Your task to perform on an android device: Open Google Maps and go to "Timeline" Image 0: 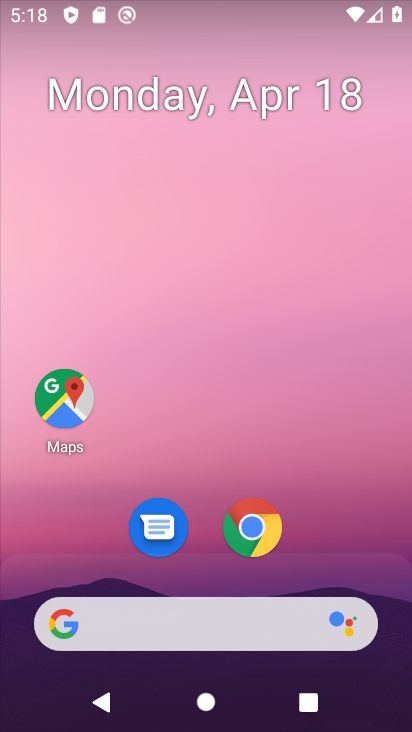
Step 0: click (75, 399)
Your task to perform on an android device: Open Google Maps and go to "Timeline" Image 1: 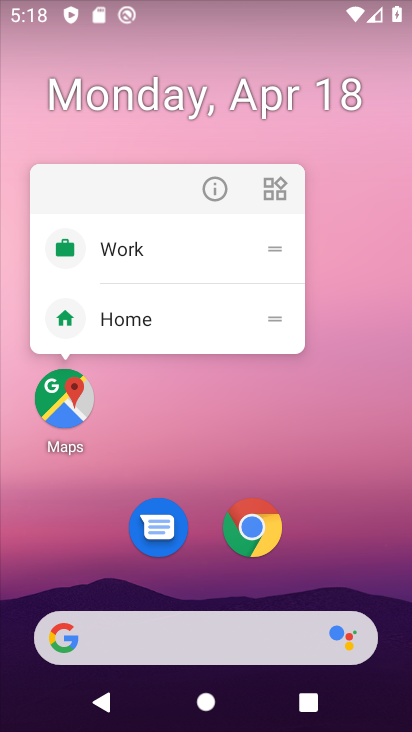
Step 1: click (72, 390)
Your task to perform on an android device: Open Google Maps and go to "Timeline" Image 2: 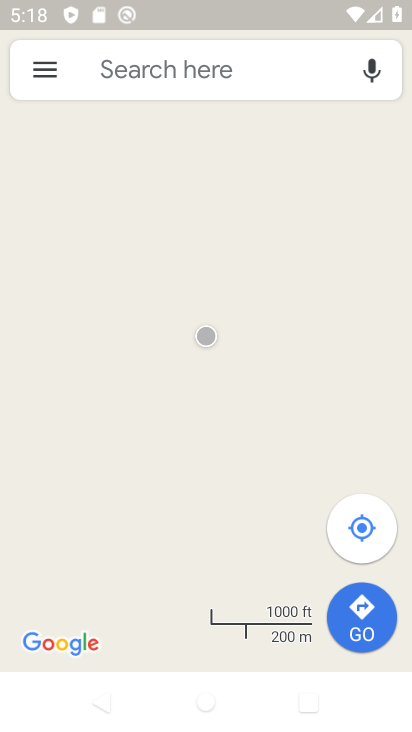
Step 2: click (43, 75)
Your task to perform on an android device: Open Google Maps and go to "Timeline" Image 3: 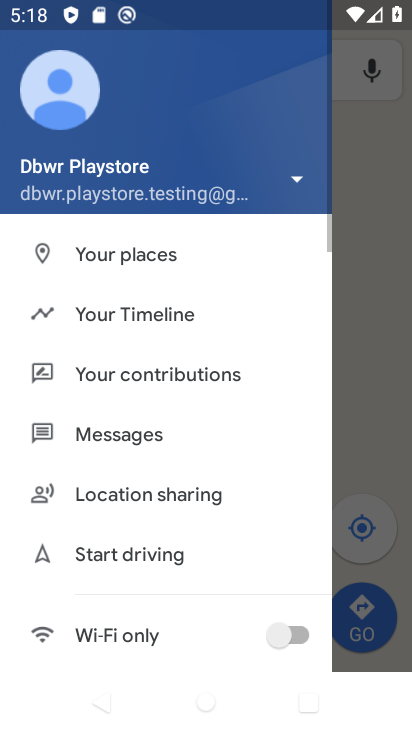
Step 3: click (136, 322)
Your task to perform on an android device: Open Google Maps and go to "Timeline" Image 4: 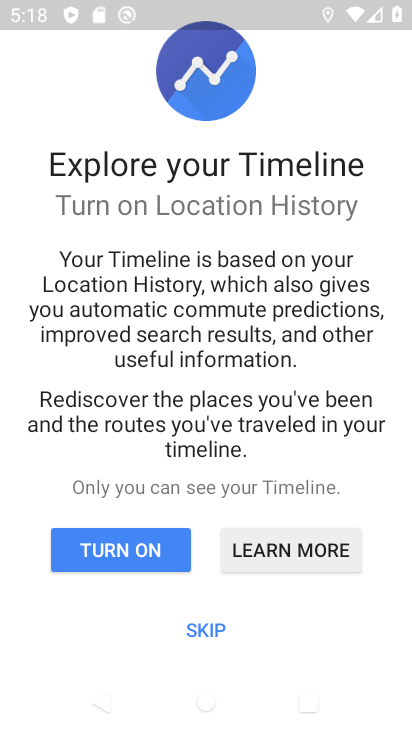
Step 4: click (204, 619)
Your task to perform on an android device: Open Google Maps and go to "Timeline" Image 5: 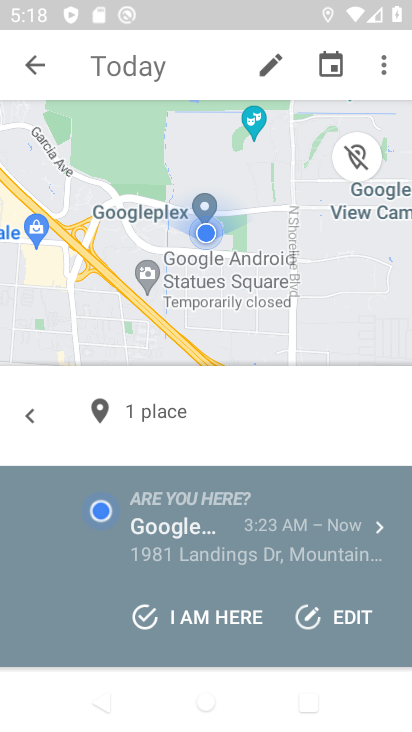
Step 5: task complete